Your task to perform on an android device: open a new tab in the chrome app Image 0: 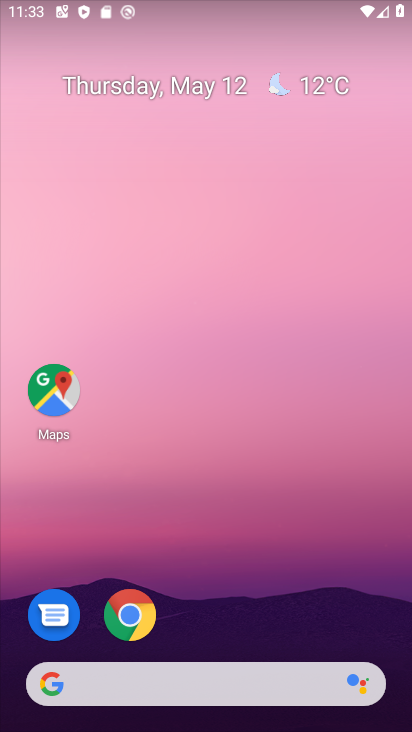
Step 0: click (144, 606)
Your task to perform on an android device: open a new tab in the chrome app Image 1: 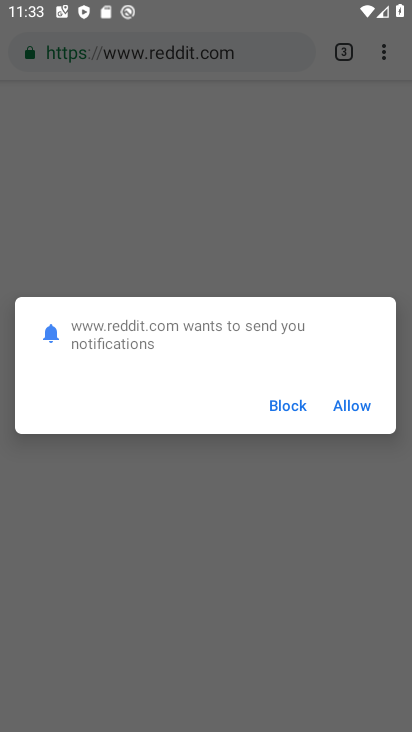
Step 1: click (341, 389)
Your task to perform on an android device: open a new tab in the chrome app Image 2: 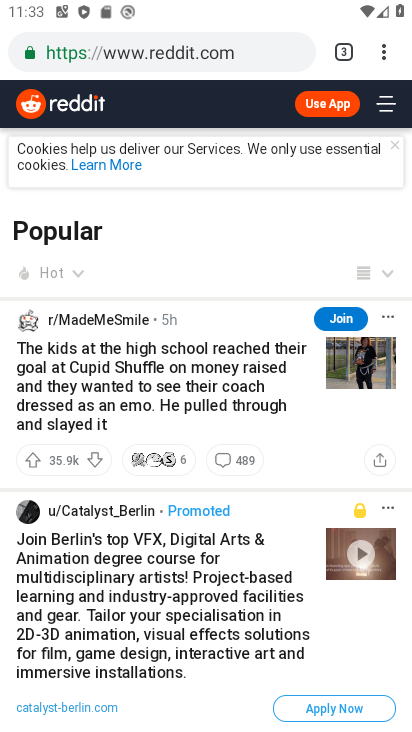
Step 2: click (341, 47)
Your task to perform on an android device: open a new tab in the chrome app Image 3: 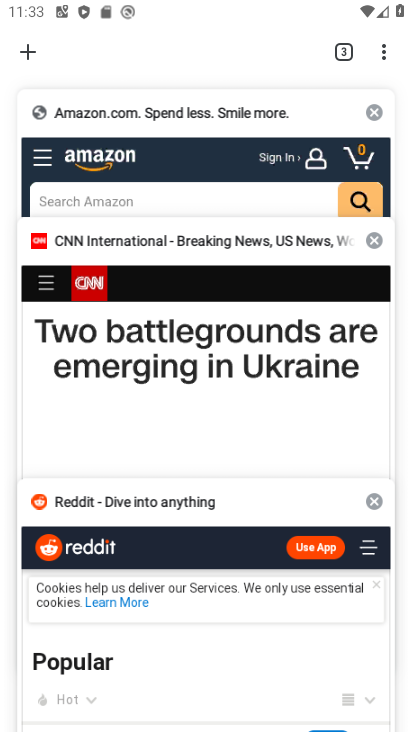
Step 3: click (34, 55)
Your task to perform on an android device: open a new tab in the chrome app Image 4: 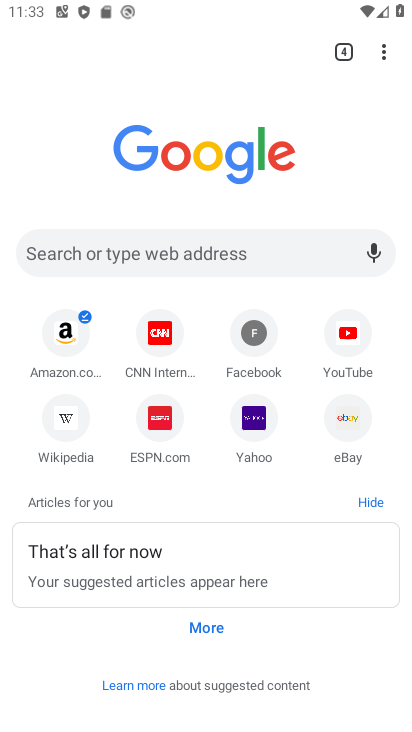
Step 4: task complete